Your task to perform on an android device: toggle data saver in the chrome app Image 0: 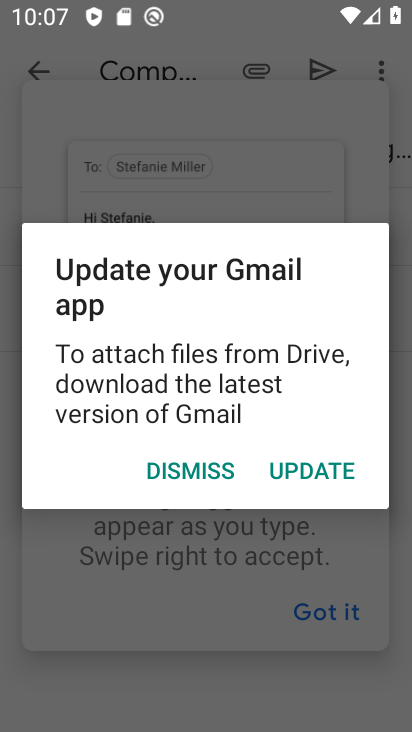
Step 0: press home button
Your task to perform on an android device: toggle data saver in the chrome app Image 1: 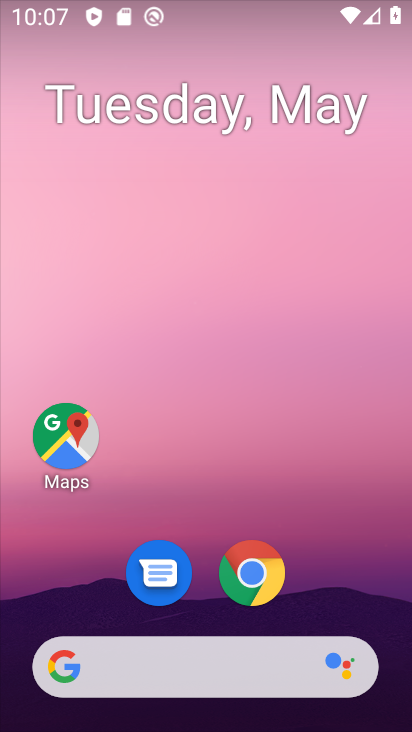
Step 1: drag from (341, 599) to (299, 94)
Your task to perform on an android device: toggle data saver in the chrome app Image 2: 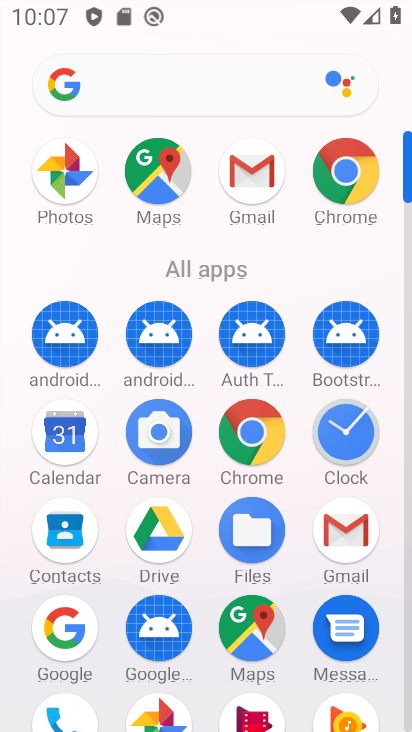
Step 2: click (246, 438)
Your task to perform on an android device: toggle data saver in the chrome app Image 3: 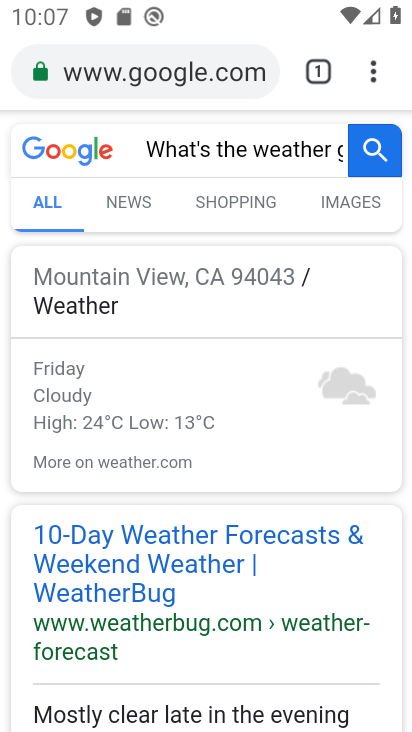
Step 3: drag from (376, 72) to (152, 571)
Your task to perform on an android device: toggle data saver in the chrome app Image 4: 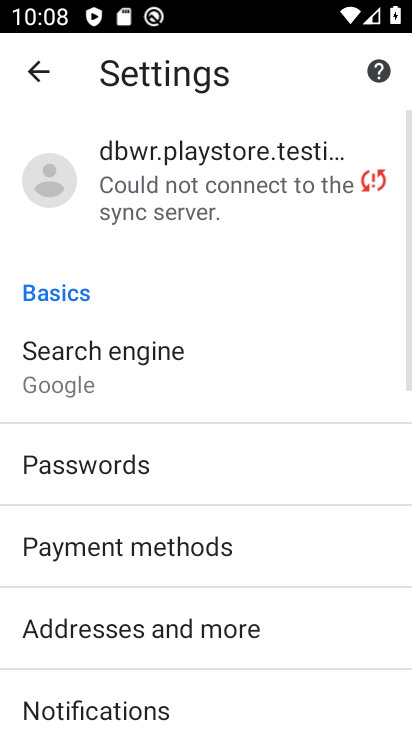
Step 4: drag from (254, 680) to (232, 322)
Your task to perform on an android device: toggle data saver in the chrome app Image 5: 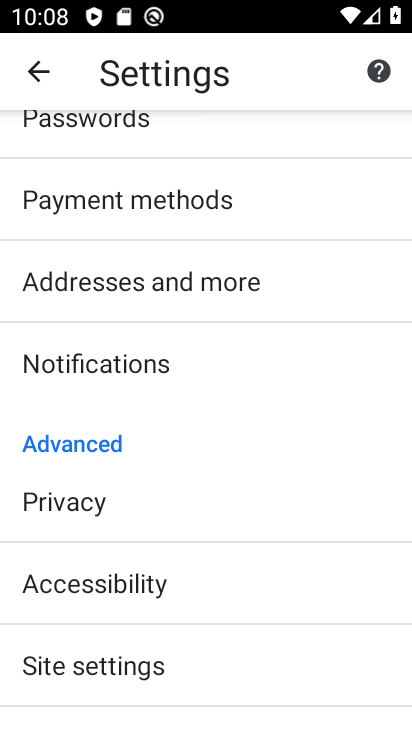
Step 5: drag from (198, 664) to (207, 435)
Your task to perform on an android device: toggle data saver in the chrome app Image 6: 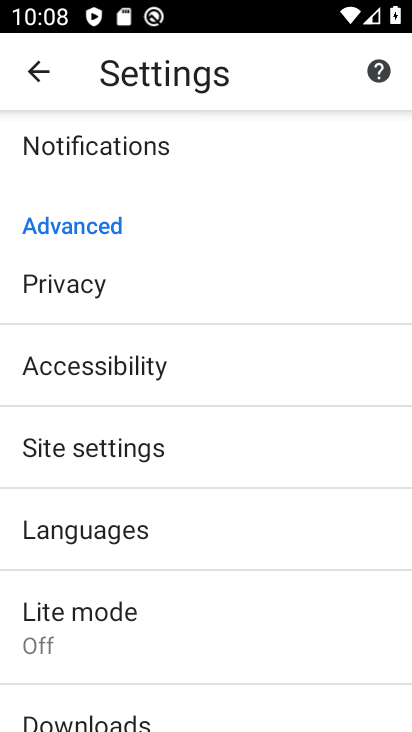
Step 6: click (102, 605)
Your task to perform on an android device: toggle data saver in the chrome app Image 7: 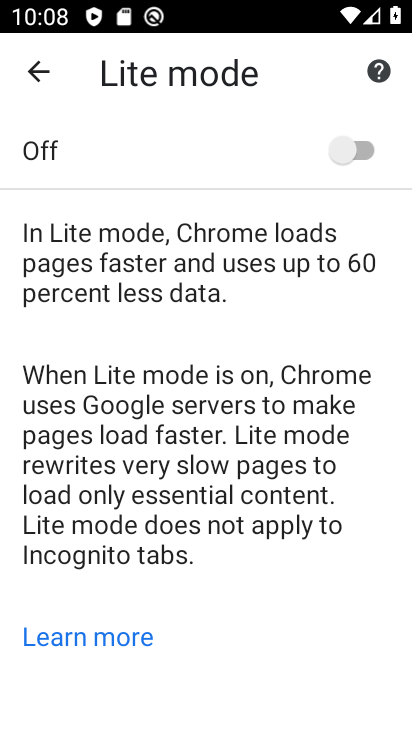
Step 7: click (355, 149)
Your task to perform on an android device: toggle data saver in the chrome app Image 8: 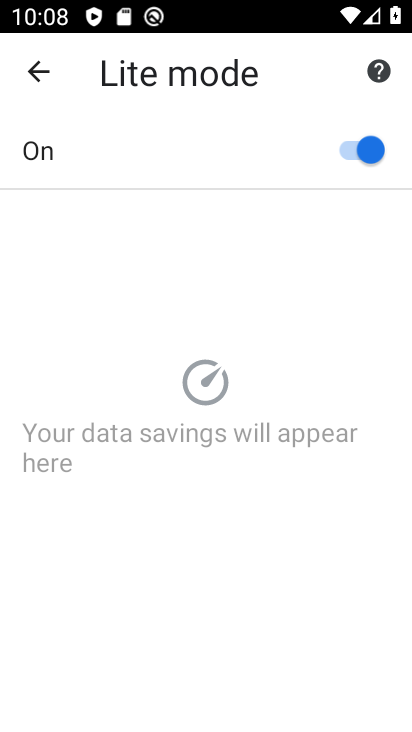
Step 8: task complete